Your task to perform on an android device: Open Amazon Image 0: 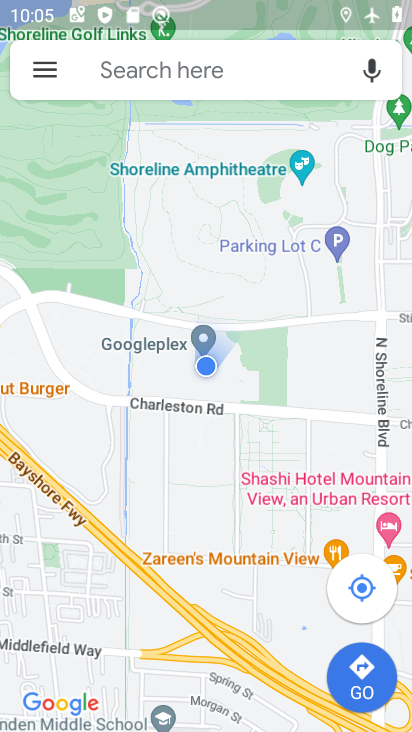
Step 0: press back button
Your task to perform on an android device: Open Amazon Image 1: 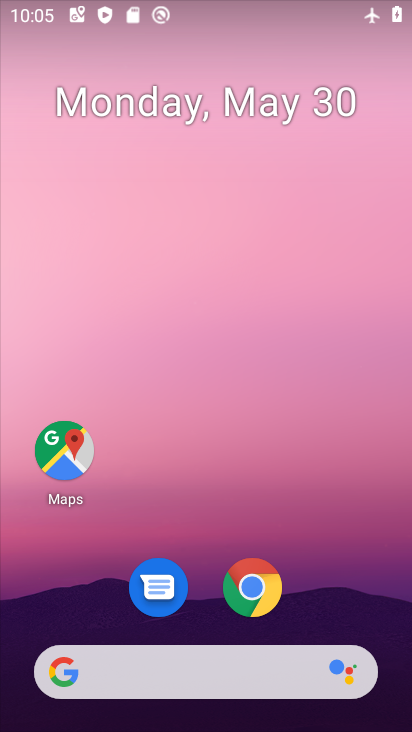
Step 1: drag from (359, 594) to (273, 3)
Your task to perform on an android device: Open Amazon Image 2: 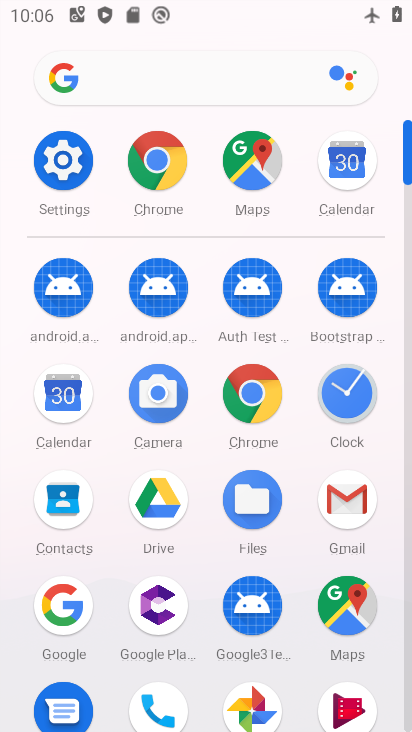
Step 2: click (154, 162)
Your task to perform on an android device: Open Amazon Image 3: 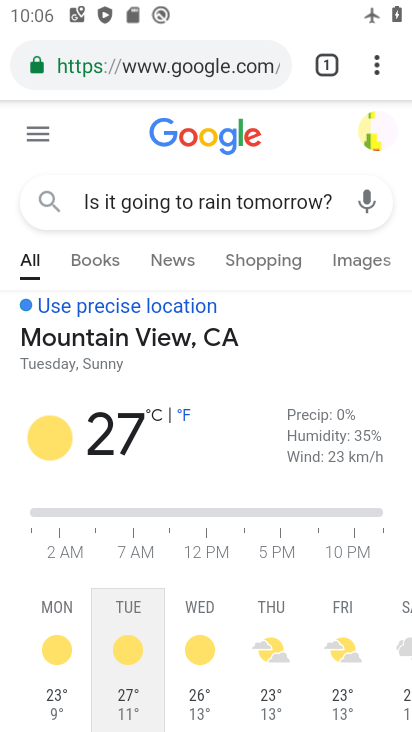
Step 3: click (169, 64)
Your task to perform on an android device: Open Amazon Image 4: 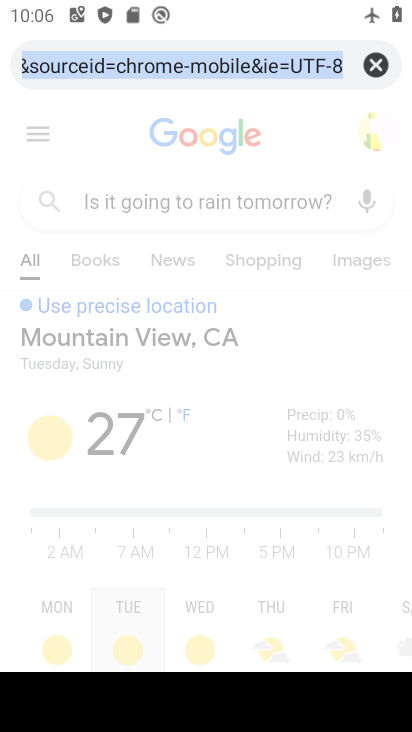
Step 4: click (372, 68)
Your task to perform on an android device: Open Amazon Image 5: 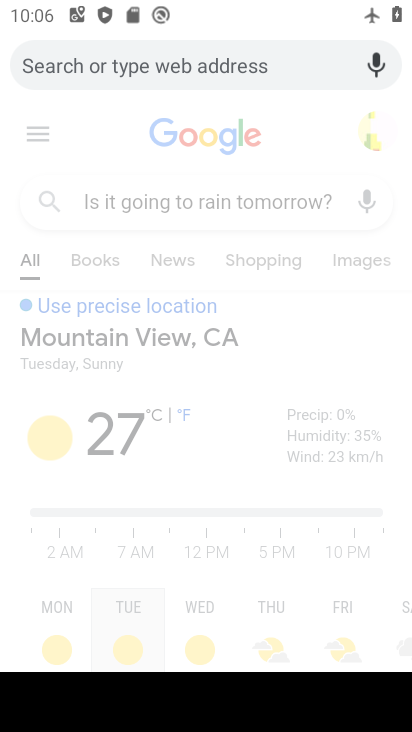
Step 5: type "Amazon"
Your task to perform on an android device: Open Amazon Image 6: 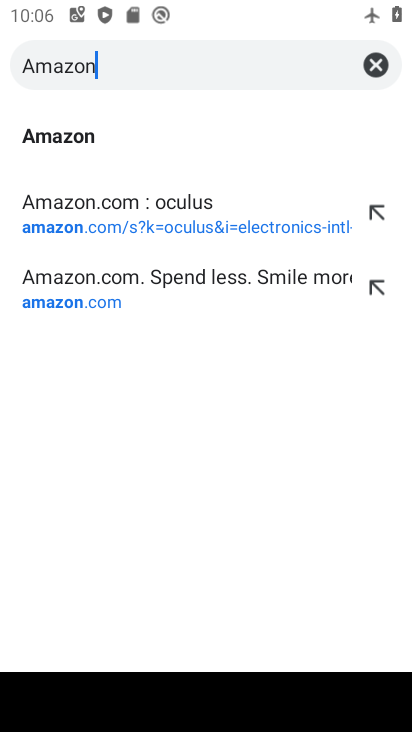
Step 6: type ""
Your task to perform on an android device: Open Amazon Image 7: 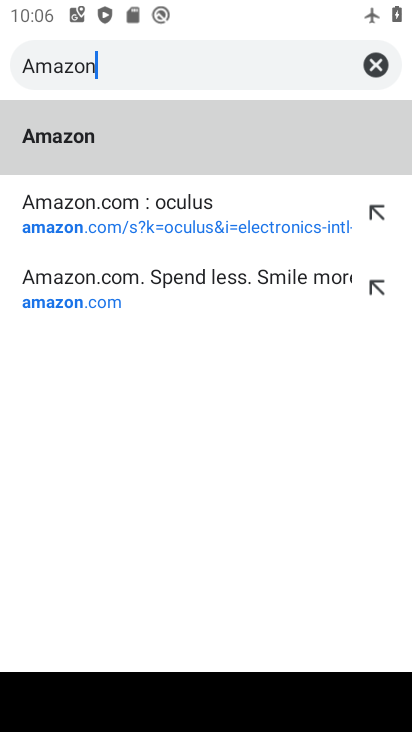
Step 7: click (93, 216)
Your task to perform on an android device: Open Amazon Image 8: 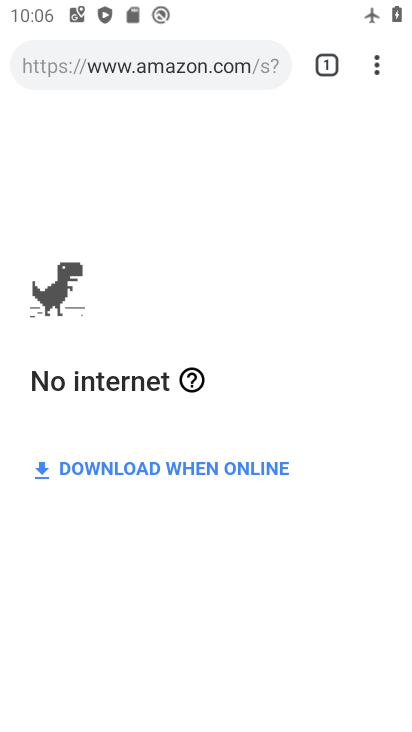
Step 8: task complete